Your task to perform on an android device: check out phone information Image 0: 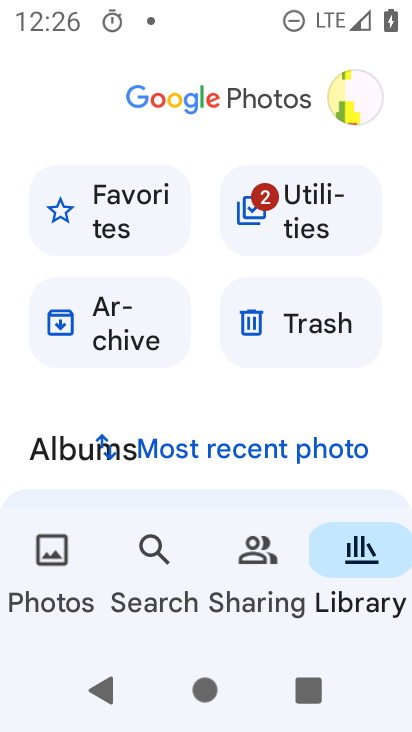
Step 0: drag from (200, 476) to (265, 155)
Your task to perform on an android device: check out phone information Image 1: 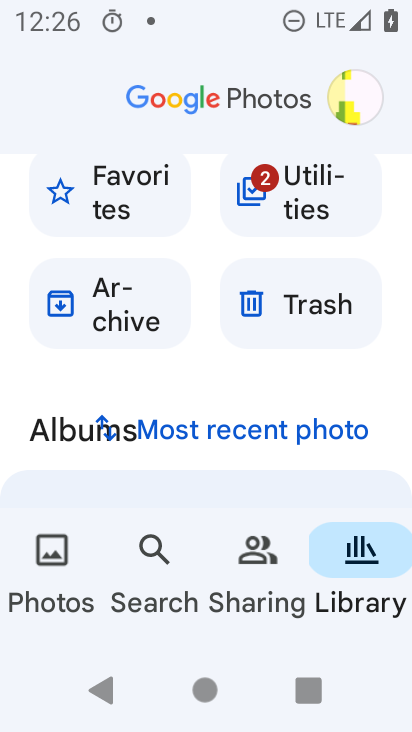
Step 1: drag from (273, 495) to (338, 148)
Your task to perform on an android device: check out phone information Image 2: 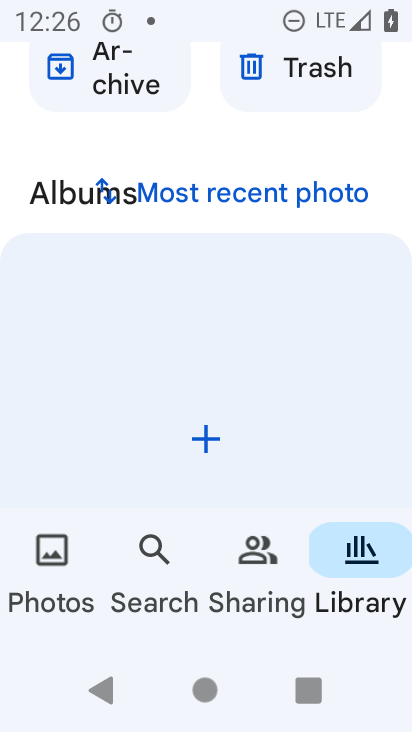
Step 2: press home button
Your task to perform on an android device: check out phone information Image 3: 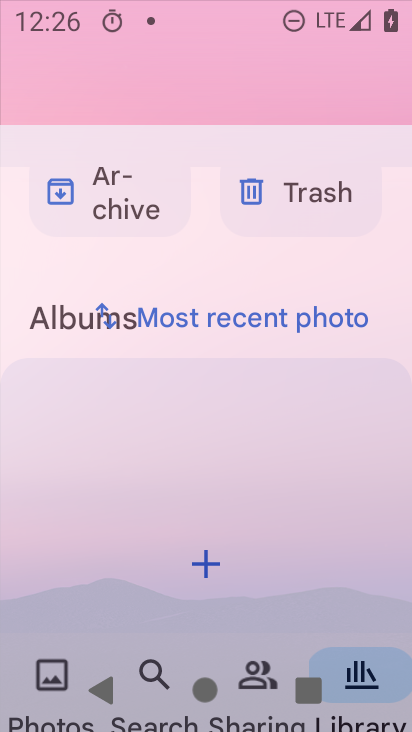
Step 3: drag from (100, 497) to (225, 148)
Your task to perform on an android device: check out phone information Image 4: 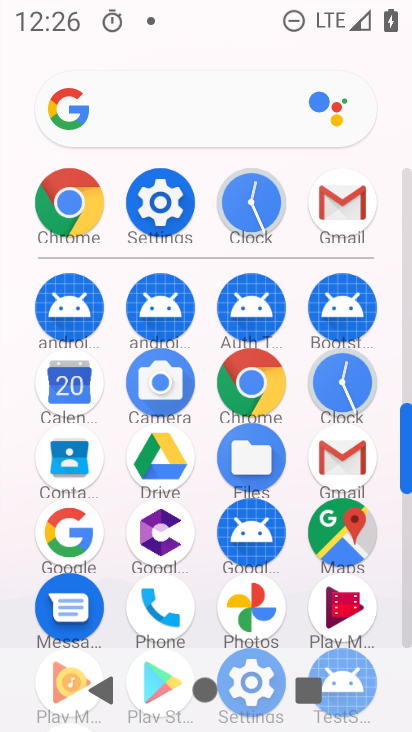
Step 4: click (151, 214)
Your task to perform on an android device: check out phone information Image 5: 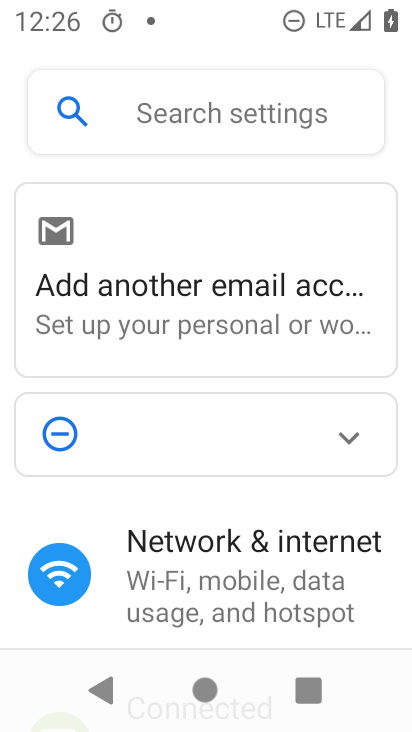
Step 5: drag from (248, 547) to (410, 132)
Your task to perform on an android device: check out phone information Image 6: 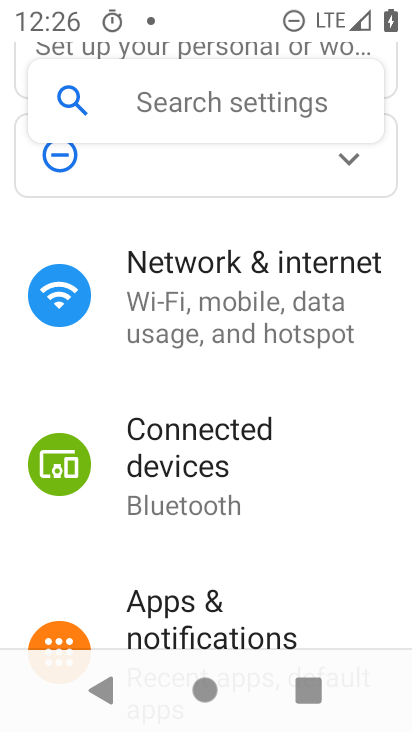
Step 6: drag from (266, 557) to (405, 200)
Your task to perform on an android device: check out phone information Image 7: 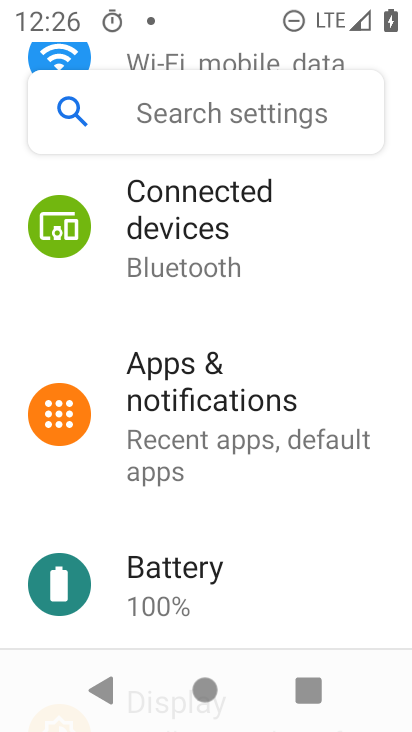
Step 7: drag from (217, 551) to (323, 13)
Your task to perform on an android device: check out phone information Image 8: 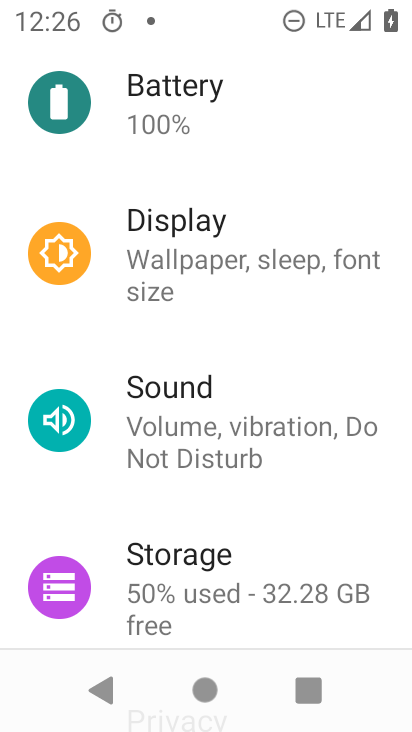
Step 8: drag from (255, 565) to (315, 205)
Your task to perform on an android device: check out phone information Image 9: 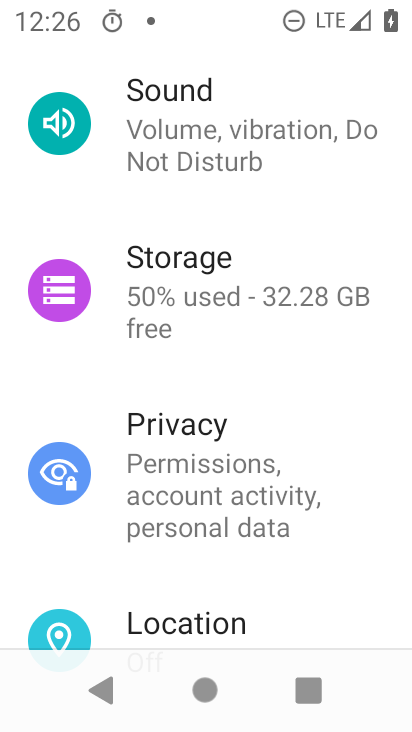
Step 9: drag from (255, 477) to (381, 0)
Your task to perform on an android device: check out phone information Image 10: 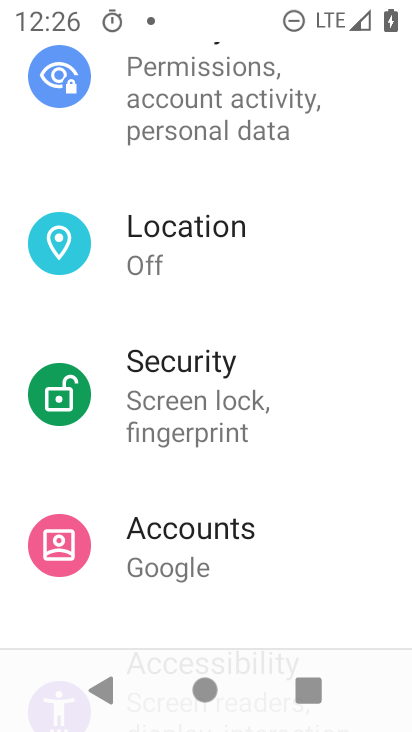
Step 10: drag from (171, 565) to (297, 190)
Your task to perform on an android device: check out phone information Image 11: 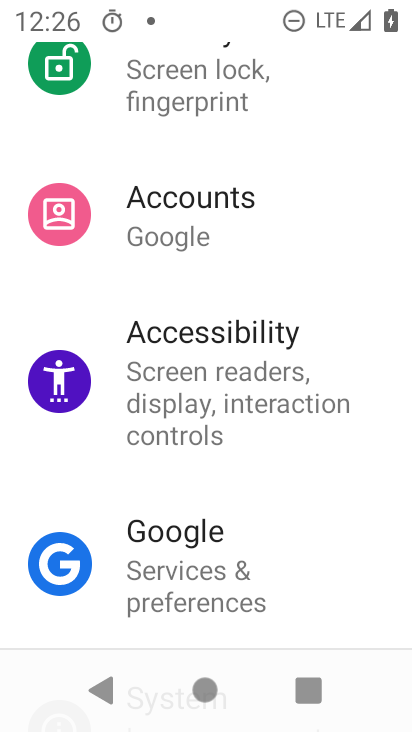
Step 11: drag from (225, 601) to (273, 10)
Your task to perform on an android device: check out phone information Image 12: 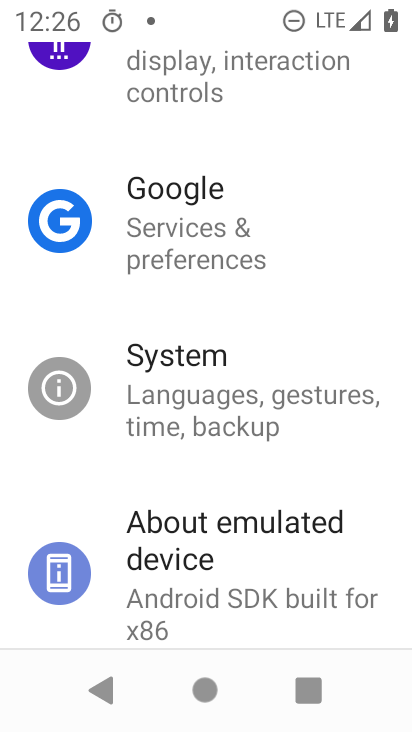
Step 12: click (190, 564)
Your task to perform on an android device: check out phone information Image 13: 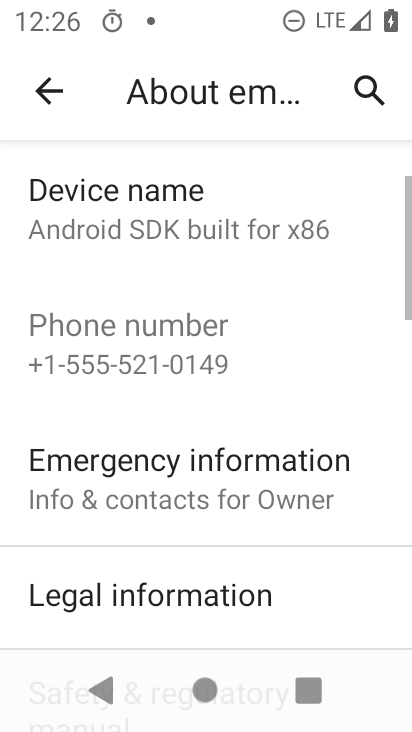
Step 13: task complete